Your task to perform on an android device: toggle airplane mode Image 0: 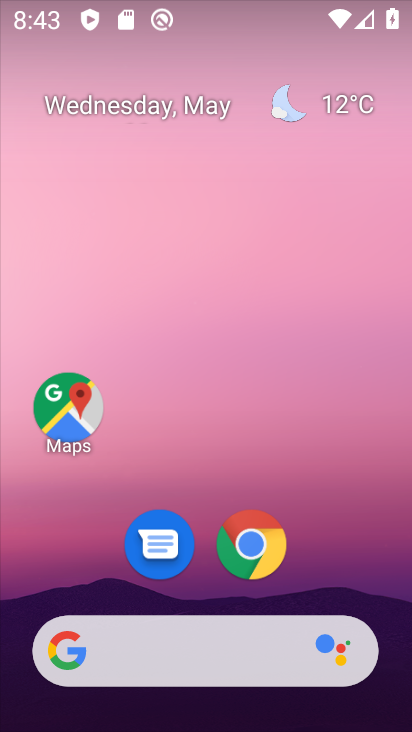
Step 0: drag from (188, 582) to (160, 131)
Your task to perform on an android device: toggle airplane mode Image 1: 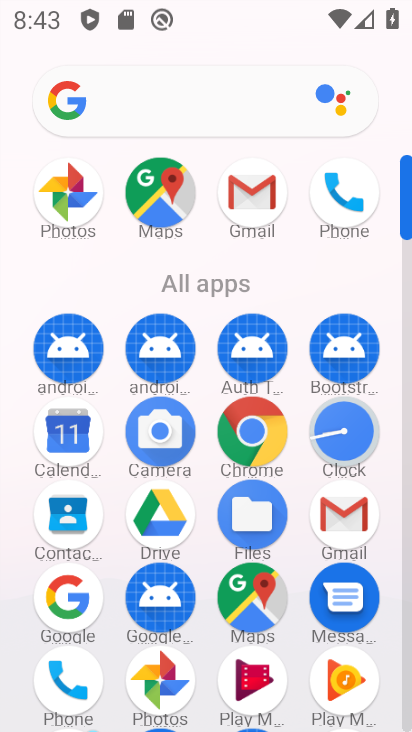
Step 1: drag from (214, 8) to (38, 717)
Your task to perform on an android device: toggle airplane mode Image 2: 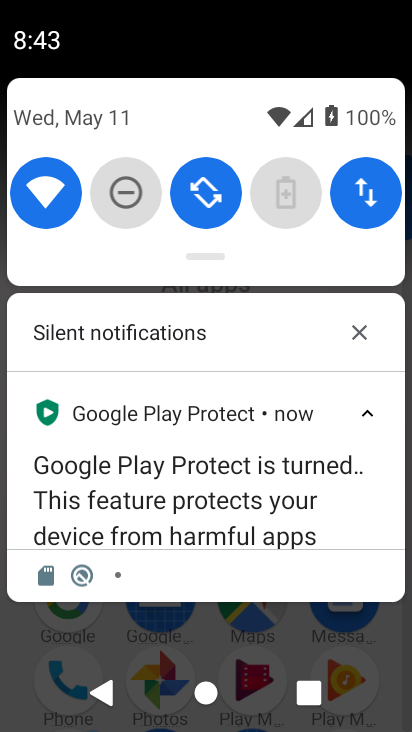
Step 2: drag from (279, 120) to (276, 725)
Your task to perform on an android device: toggle airplane mode Image 3: 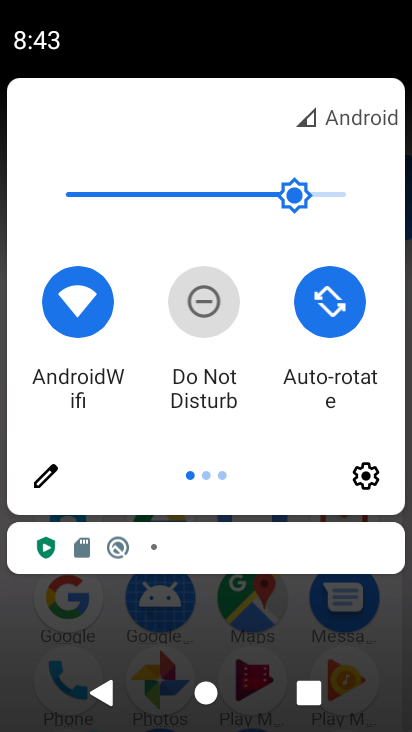
Step 3: drag from (368, 380) to (45, 339)
Your task to perform on an android device: toggle airplane mode Image 4: 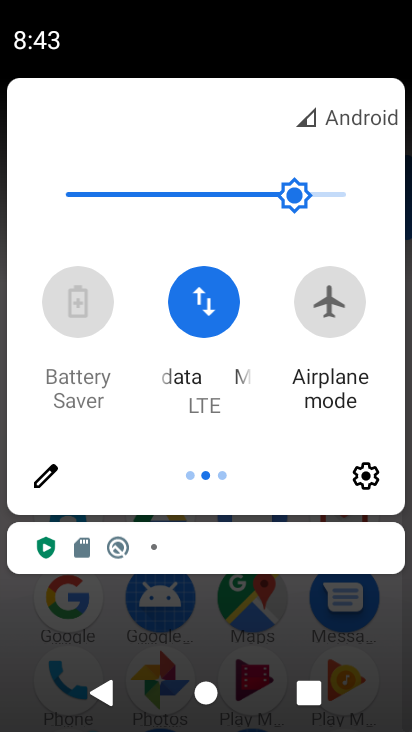
Step 4: drag from (329, 371) to (191, 379)
Your task to perform on an android device: toggle airplane mode Image 5: 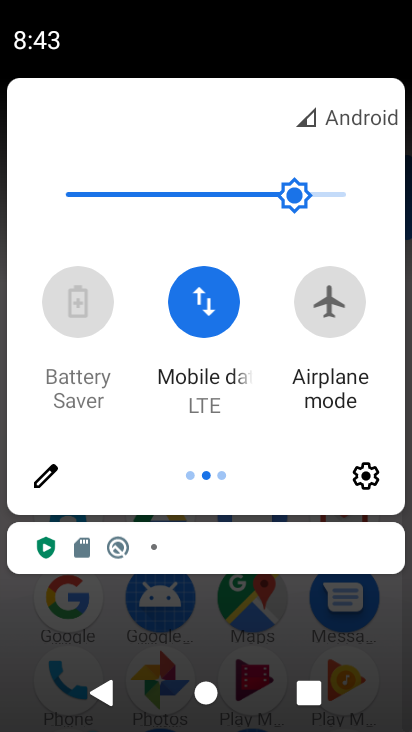
Step 5: click (325, 311)
Your task to perform on an android device: toggle airplane mode Image 6: 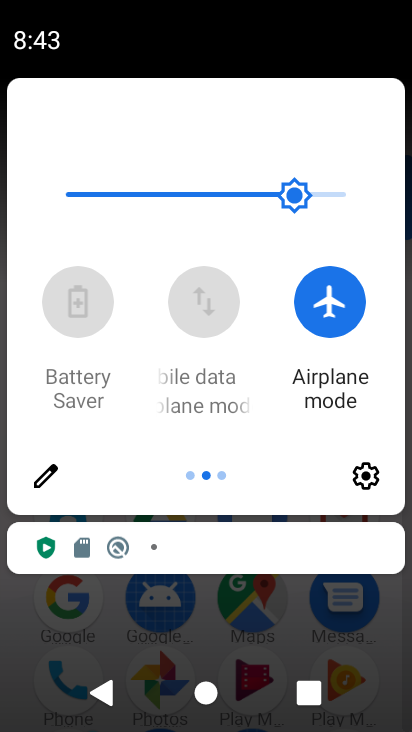
Step 6: click (325, 311)
Your task to perform on an android device: toggle airplane mode Image 7: 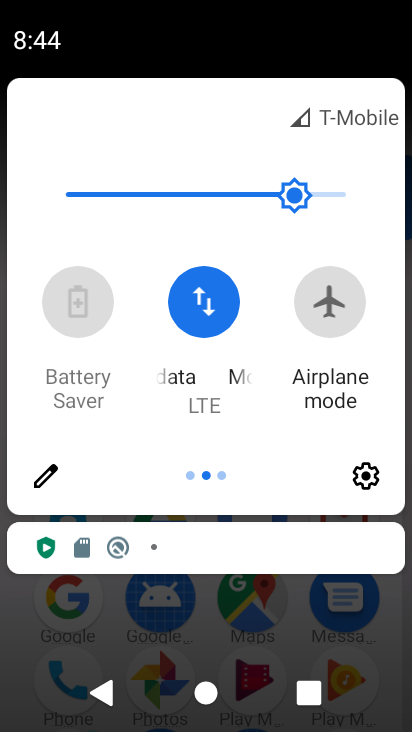
Step 7: task complete